Your task to perform on an android device: open app "Duolingo: language lessons" (install if not already installed) Image 0: 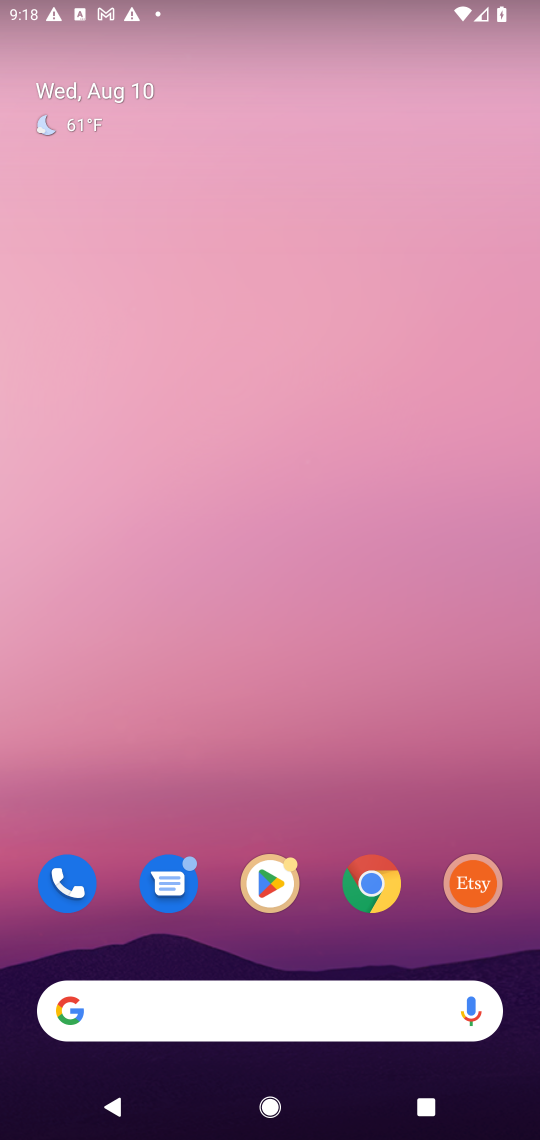
Step 0: click (260, 897)
Your task to perform on an android device: open app "Duolingo: language lessons" (install if not already installed) Image 1: 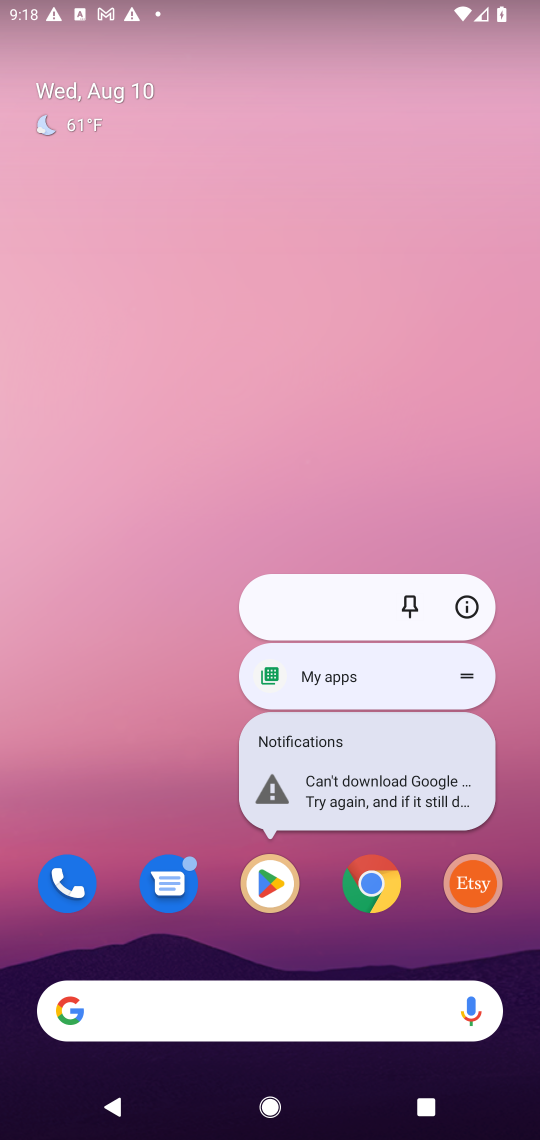
Step 1: click (262, 881)
Your task to perform on an android device: open app "Duolingo: language lessons" (install if not already installed) Image 2: 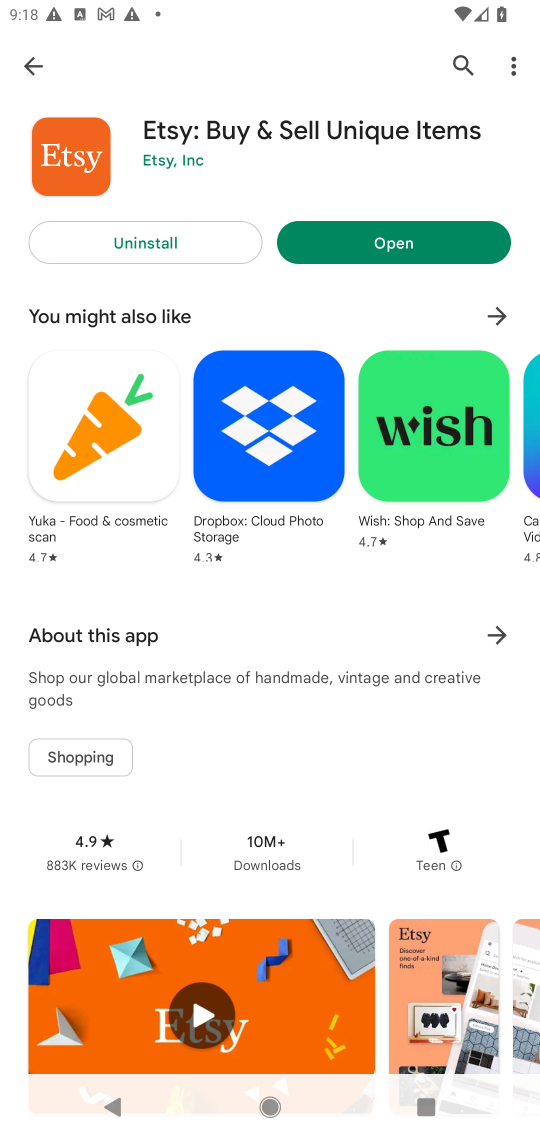
Step 2: click (465, 67)
Your task to perform on an android device: open app "Duolingo: language lessons" (install if not already installed) Image 3: 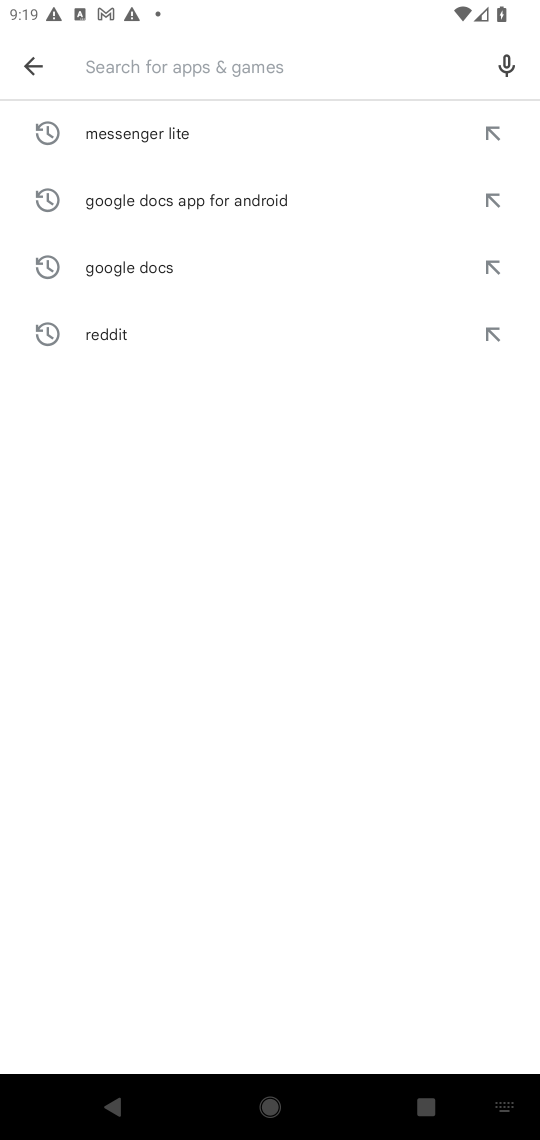
Step 3: type "Duolingo: language lessons"
Your task to perform on an android device: open app "Duolingo: language lessons" (install if not already installed) Image 4: 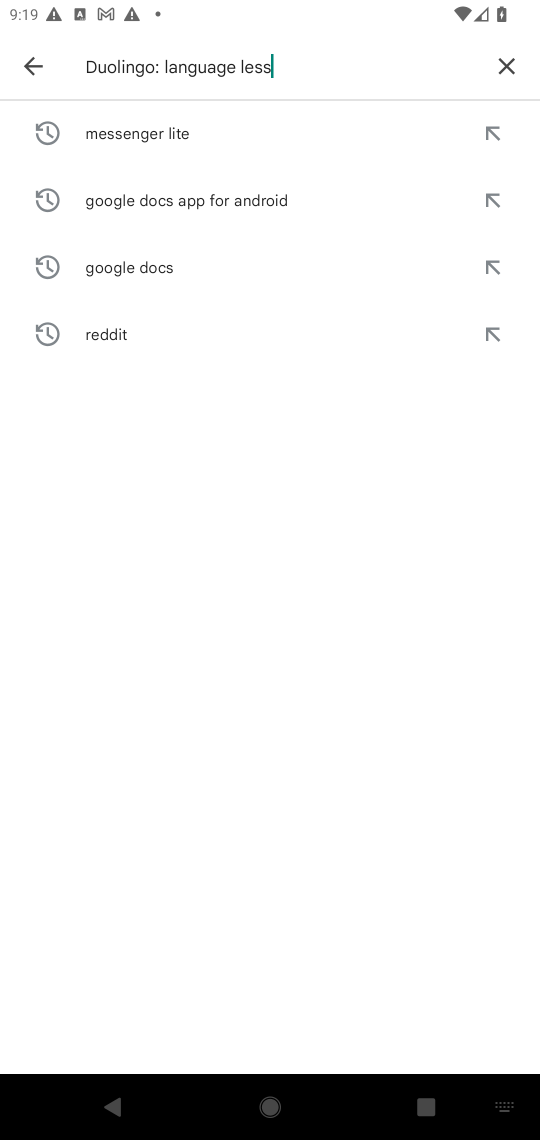
Step 4: type ""
Your task to perform on an android device: open app "Duolingo: language lessons" (install if not already installed) Image 5: 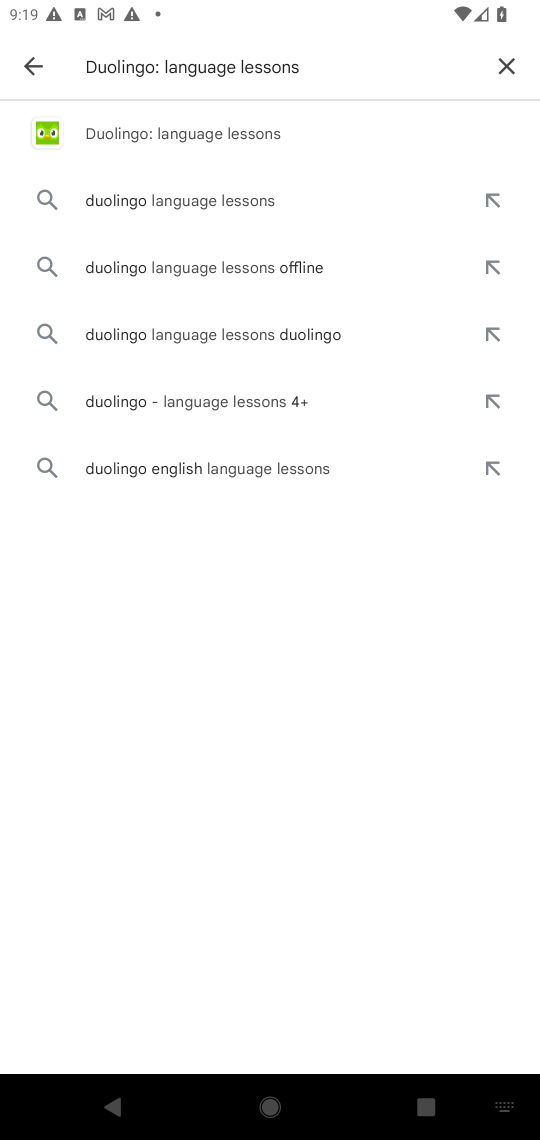
Step 5: click (230, 134)
Your task to perform on an android device: open app "Duolingo: language lessons" (install if not already installed) Image 6: 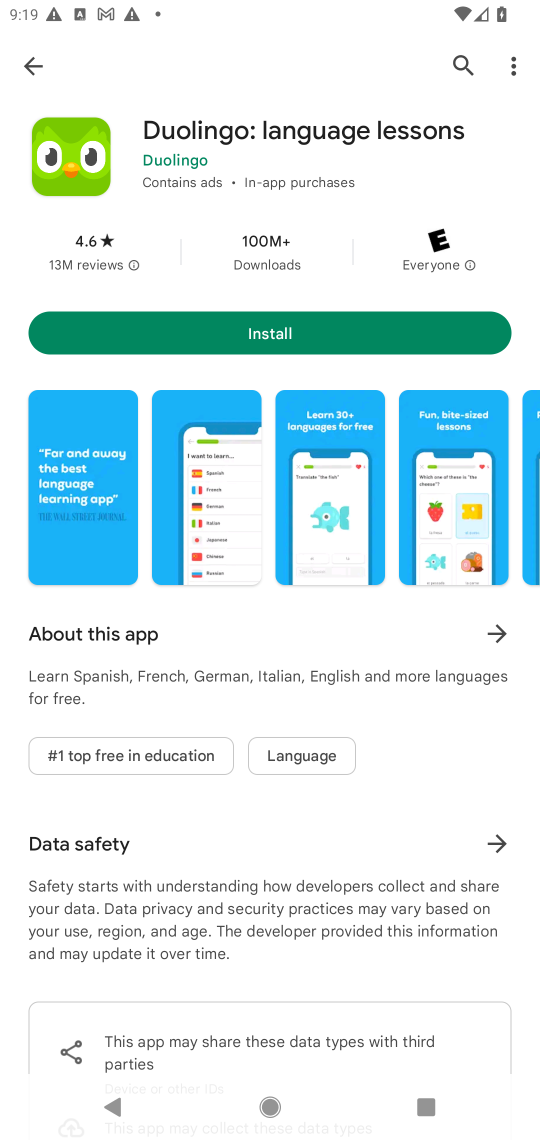
Step 6: click (284, 332)
Your task to perform on an android device: open app "Duolingo: language lessons" (install if not already installed) Image 7: 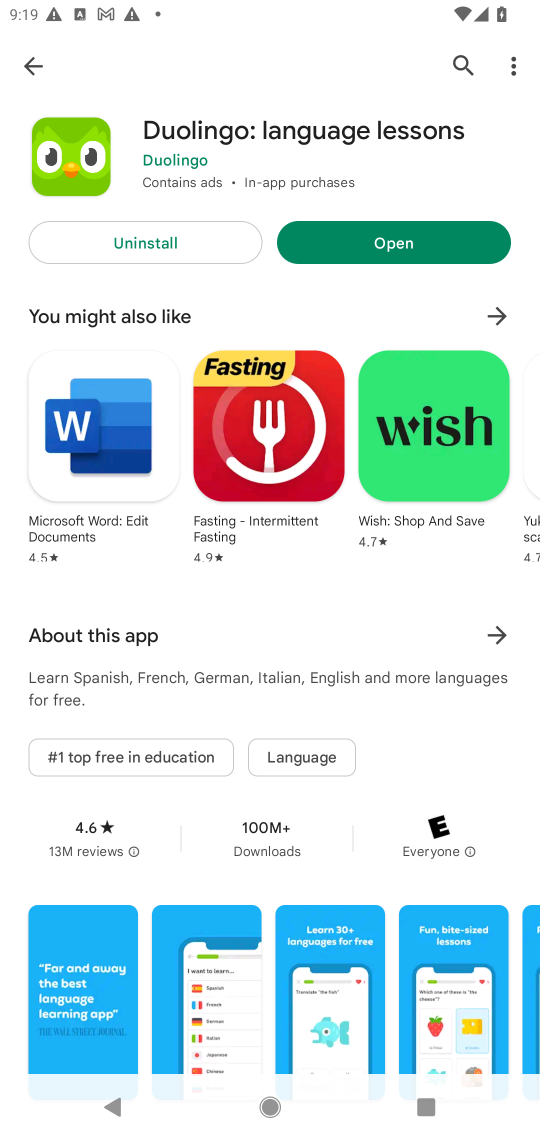
Step 7: click (419, 253)
Your task to perform on an android device: open app "Duolingo: language lessons" (install if not already installed) Image 8: 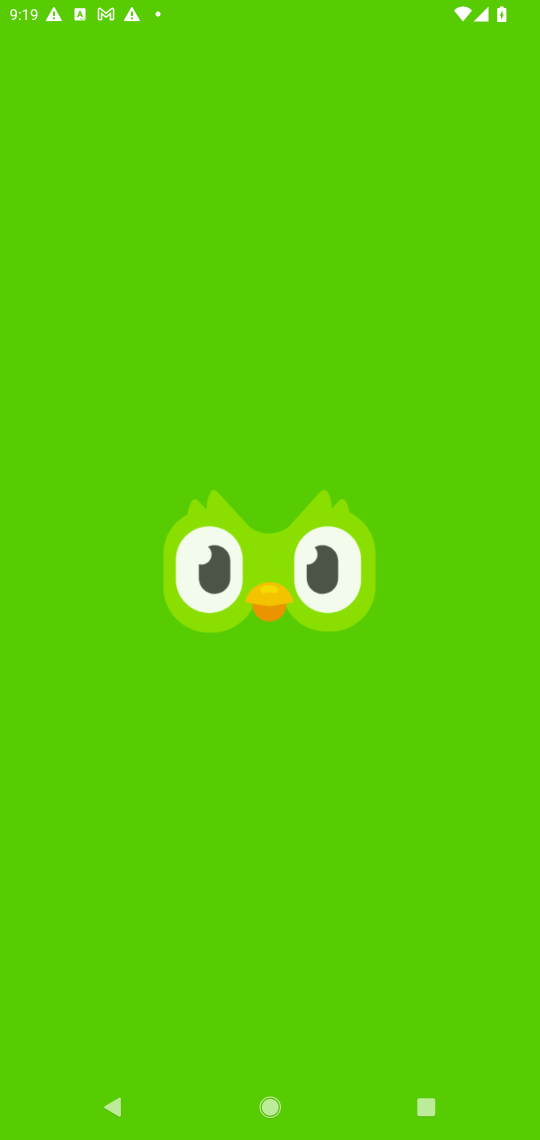
Step 8: task complete